Your task to perform on an android device: delete browsing data in the chrome app Image 0: 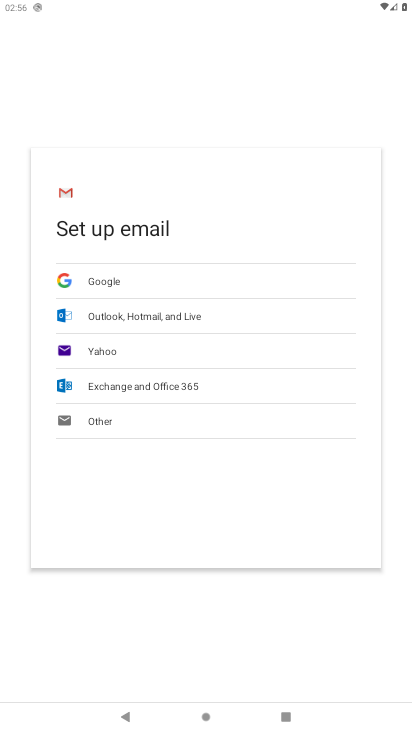
Step 0: press home button
Your task to perform on an android device: delete browsing data in the chrome app Image 1: 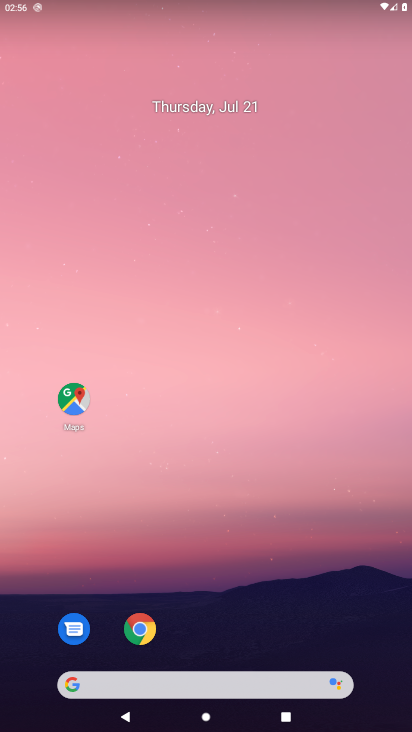
Step 1: click (151, 631)
Your task to perform on an android device: delete browsing data in the chrome app Image 2: 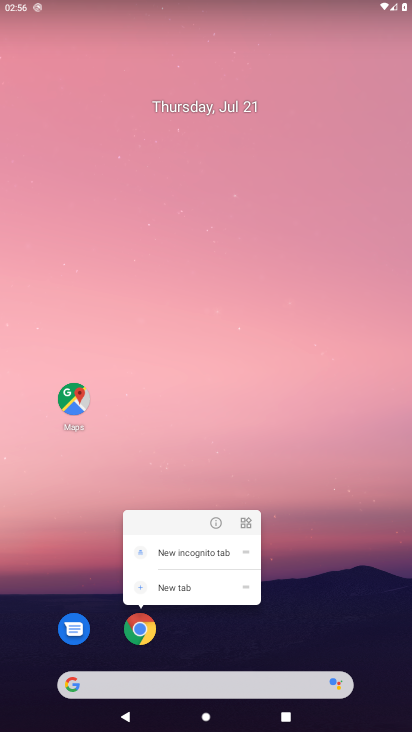
Step 2: click (136, 629)
Your task to perform on an android device: delete browsing data in the chrome app Image 3: 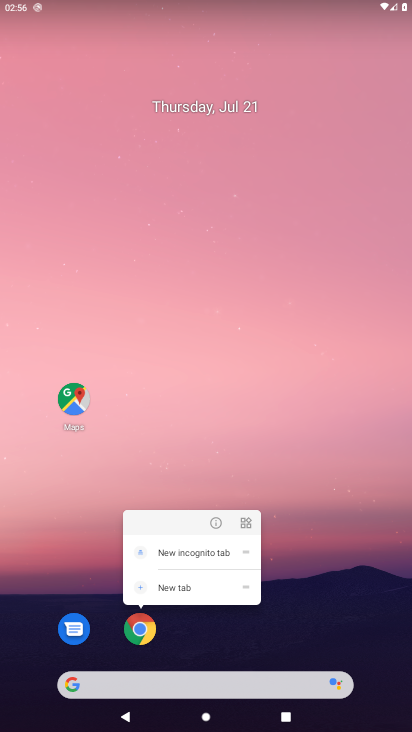
Step 3: click (137, 622)
Your task to perform on an android device: delete browsing data in the chrome app Image 4: 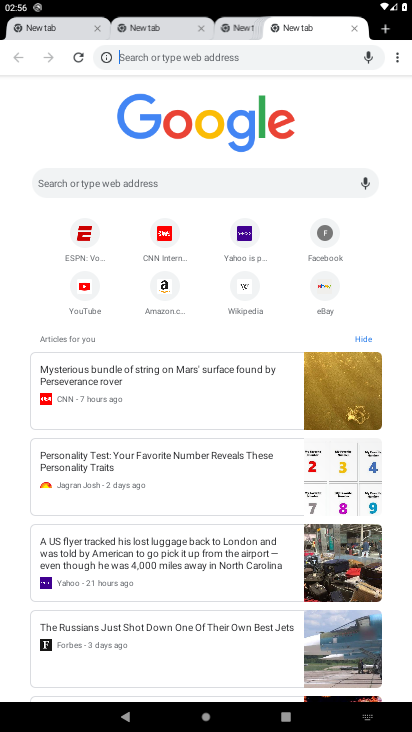
Step 4: click (398, 56)
Your task to perform on an android device: delete browsing data in the chrome app Image 5: 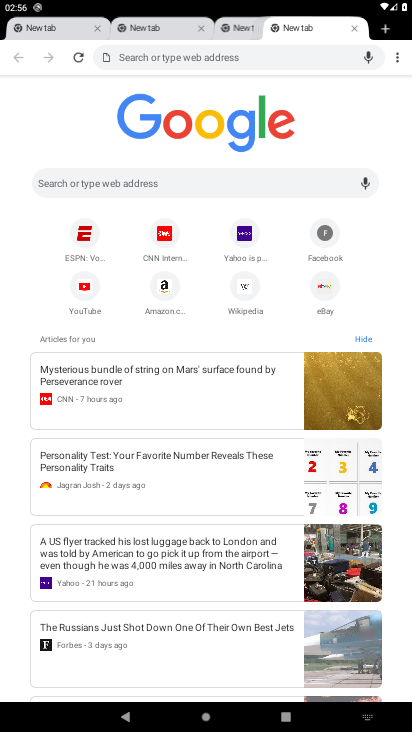
Step 5: click (399, 57)
Your task to perform on an android device: delete browsing data in the chrome app Image 6: 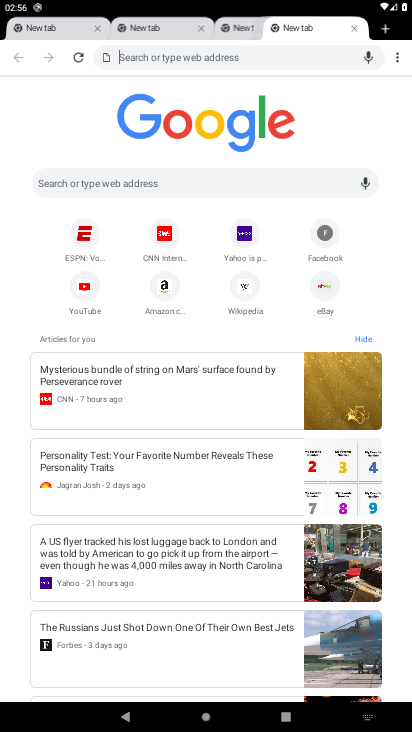
Step 6: task complete